Your task to perform on an android device: Open Reddit.com Image 0: 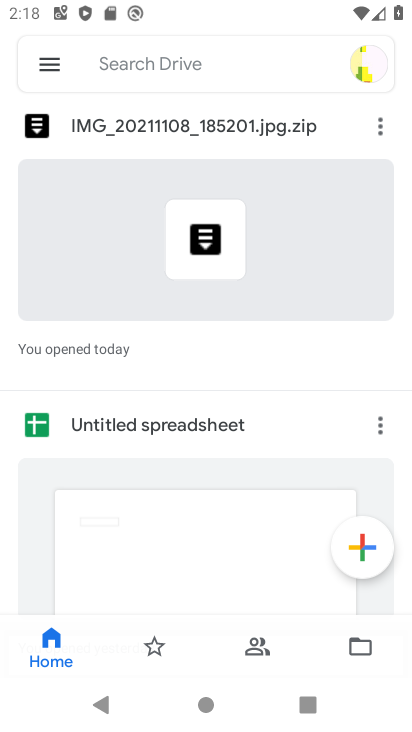
Step 0: press home button
Your task to perform on an android device: Open Reddit.com Image 1: 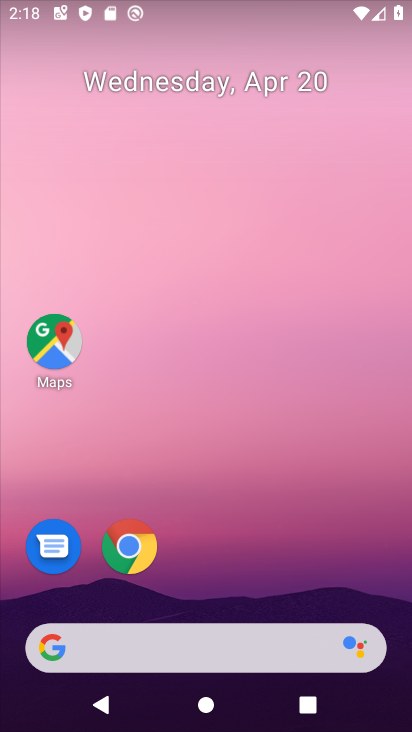
Step 1: drag from (286, 680) to (302, 303)
Your task to perform on an android device: Open Reddit.com Image 2: 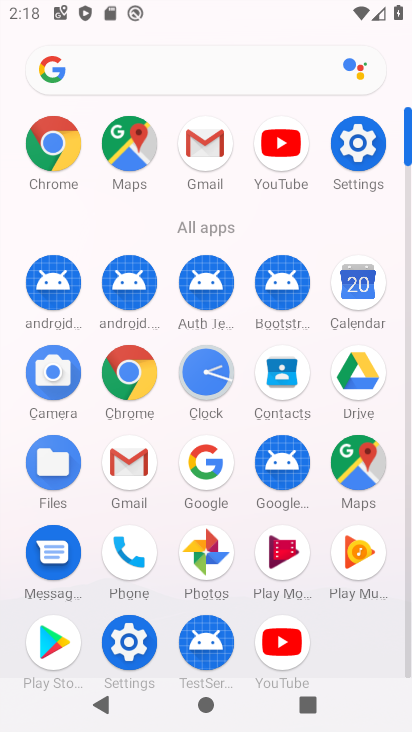
Step 2: click (148, 372)
Your task to perform on an android device: Open Reddit.com Image 3: 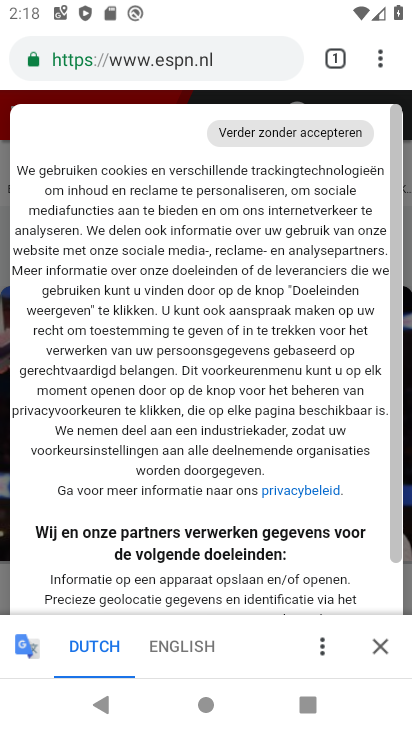
Step 3: click (183, 57)
Your task to perform on an android device: Open Reddit.com Image 4: 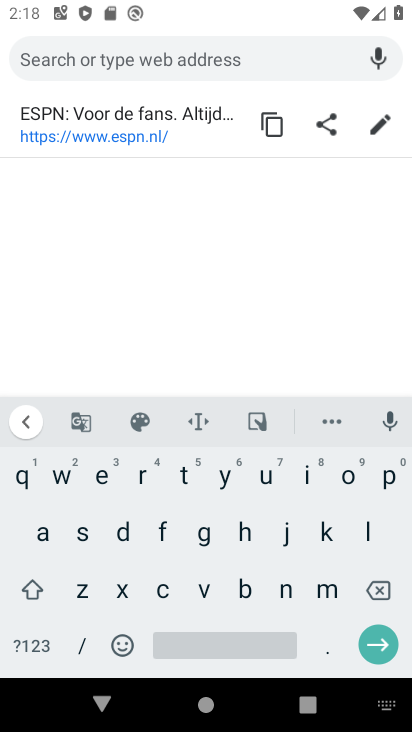
Step 4: click (134, 484)
Your task to perform on an android device: Open Reddit.com Image 5: 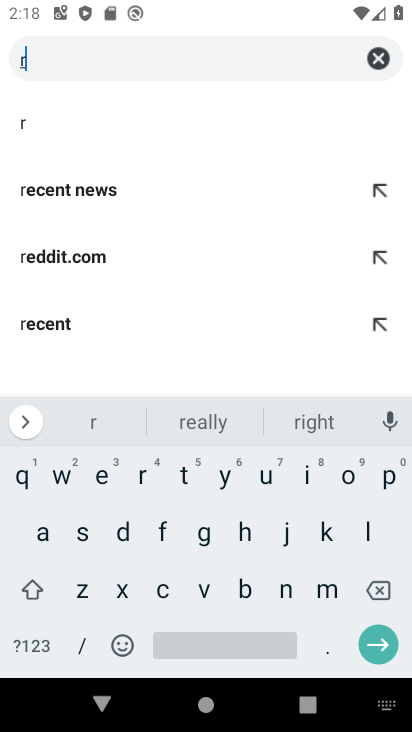
Step 5: click (79, 258)
Your task to perform on an android device: Open Reddit.com Image 6: 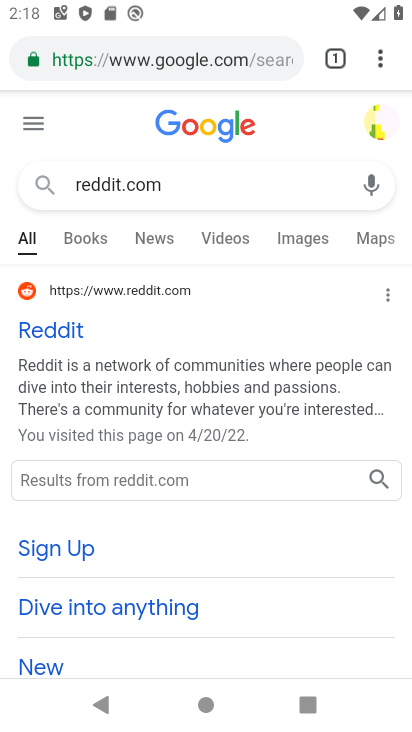
Step 6: click (66, 325)
Your task to perform on an android device: Open Reddit.com Image 7: 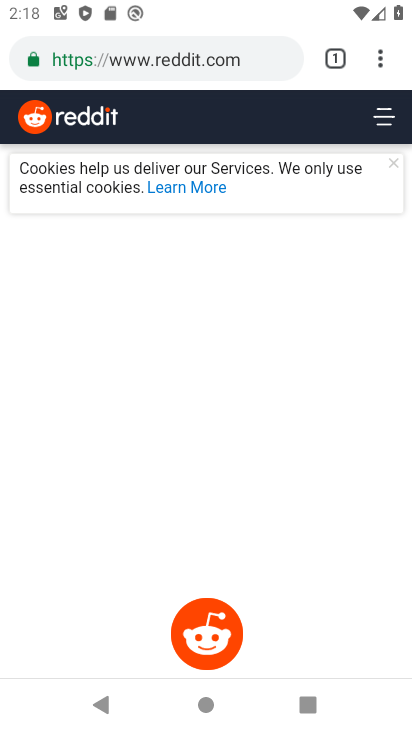
Step 7: task complete